Your task to perform on an android device: find which apps use the phone's location Image 0: 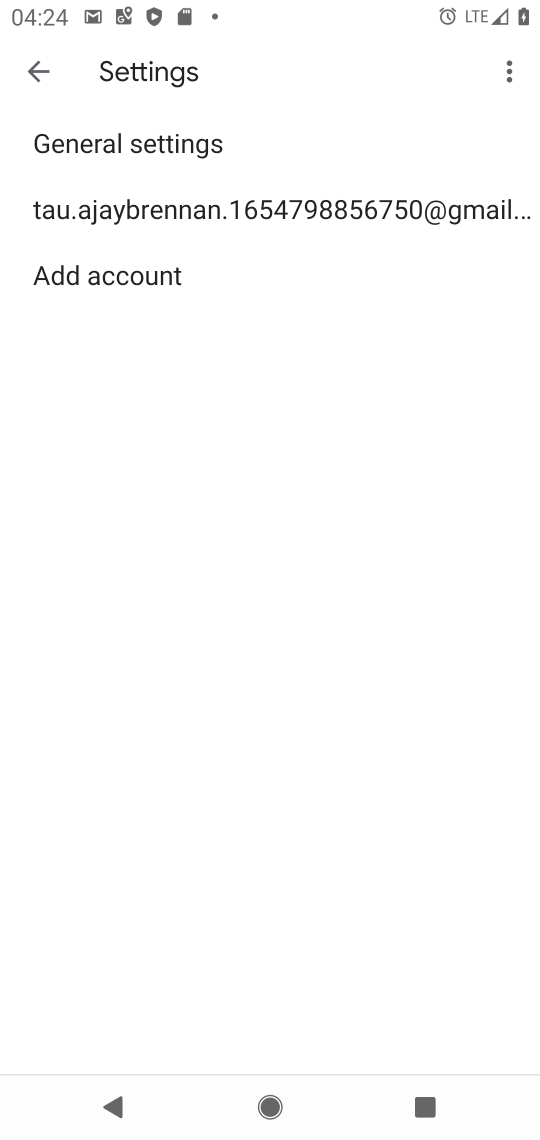
Step 0: press back button
Your task to perform on an android device: find which apps use the phone's location Image 1: 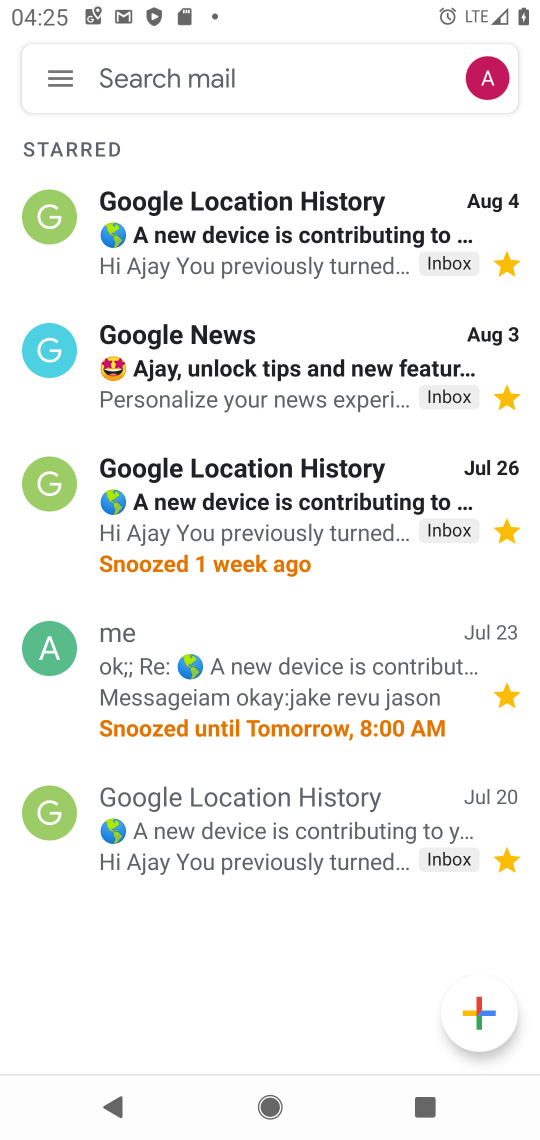
Step 1: press back button
Your task to perform on an android device: find which apps use the phone's location Image 2: 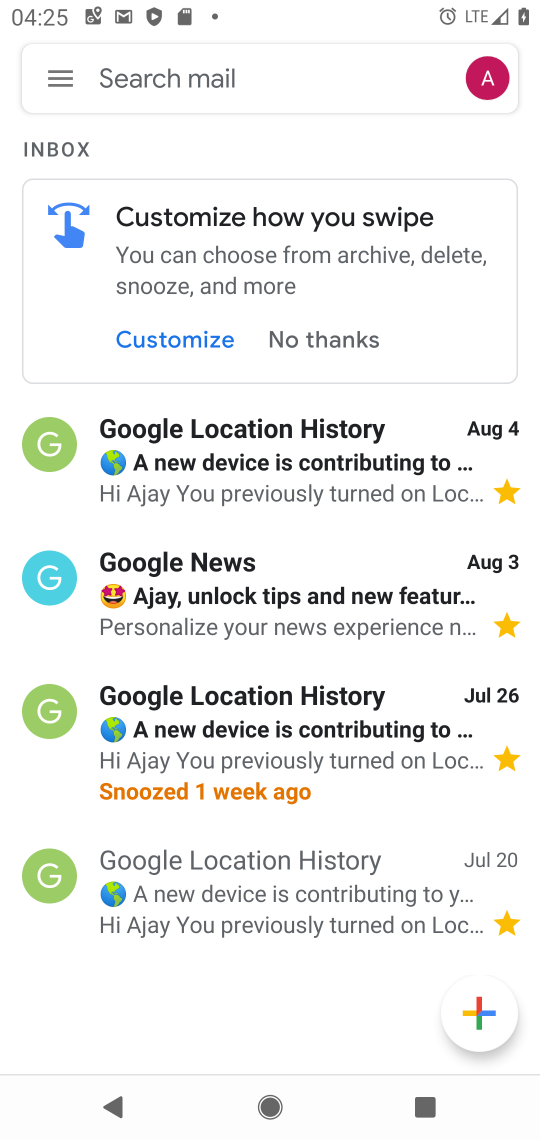
Step 2: press back button
Your task to perform on an android device: find which apps use the phone's location Image 3: 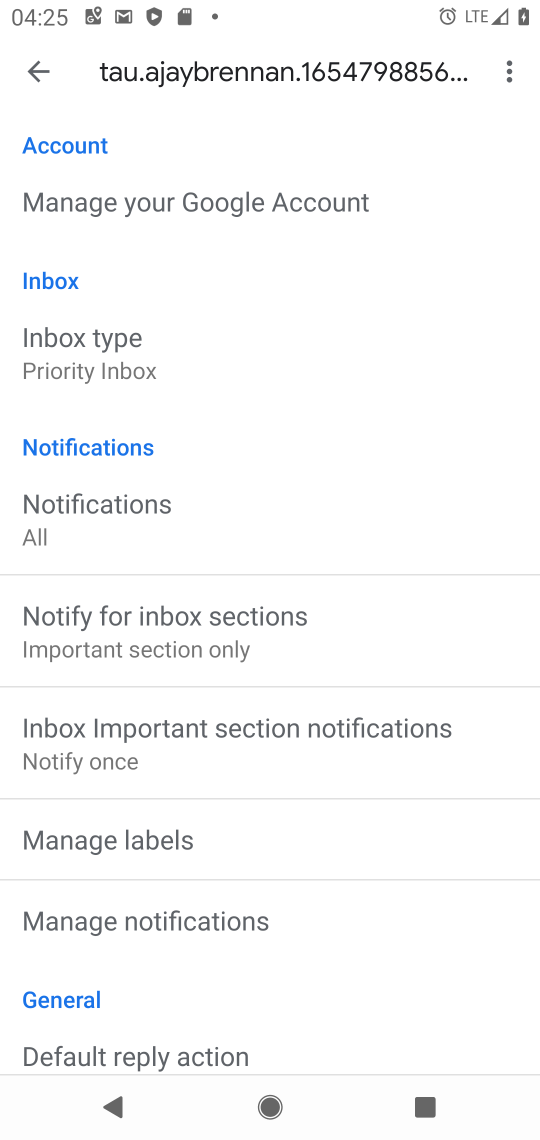
Step 3: press back button
Your task to perform on an android device: find which apps use the phone's location Image 4: 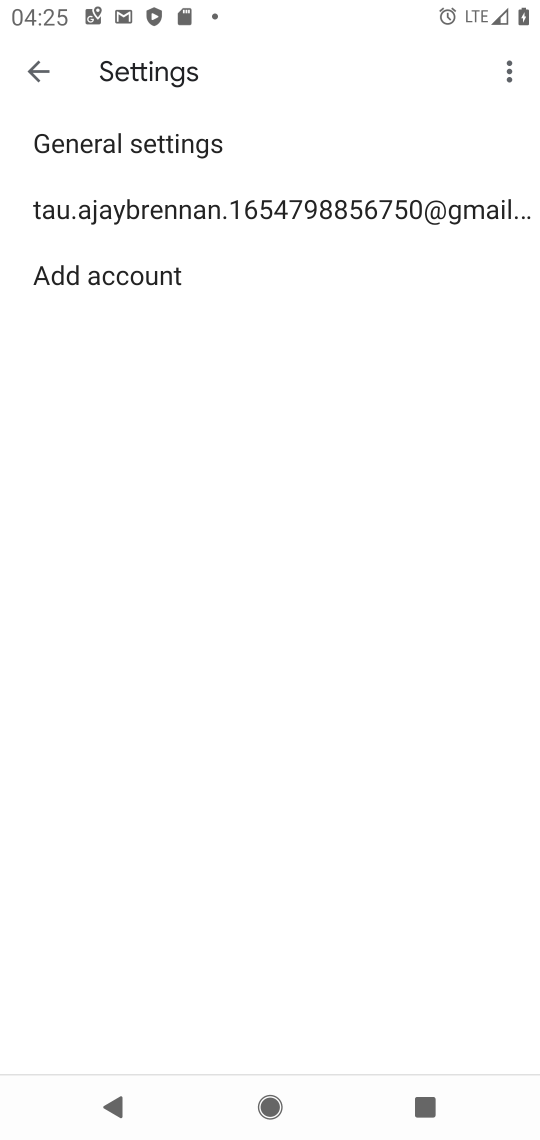
Step 4: press home button
Your task to perform on an android device: find which apps use the phone's location Image 5: 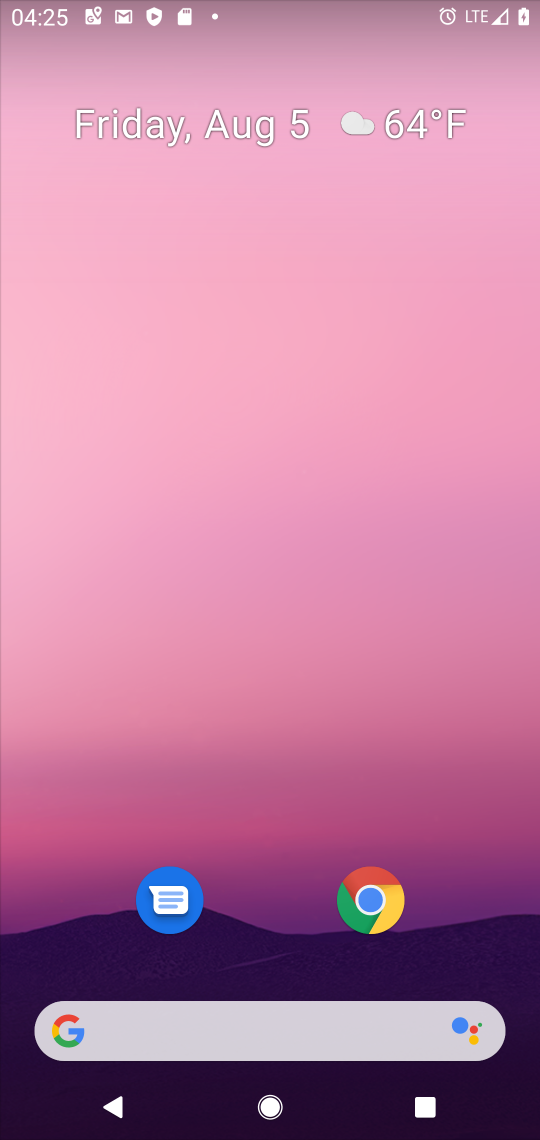
Step 5: drag from (258, 866) to (313, 41)
Your task to perform on an android device: find which apps use the phone's location Image 6: 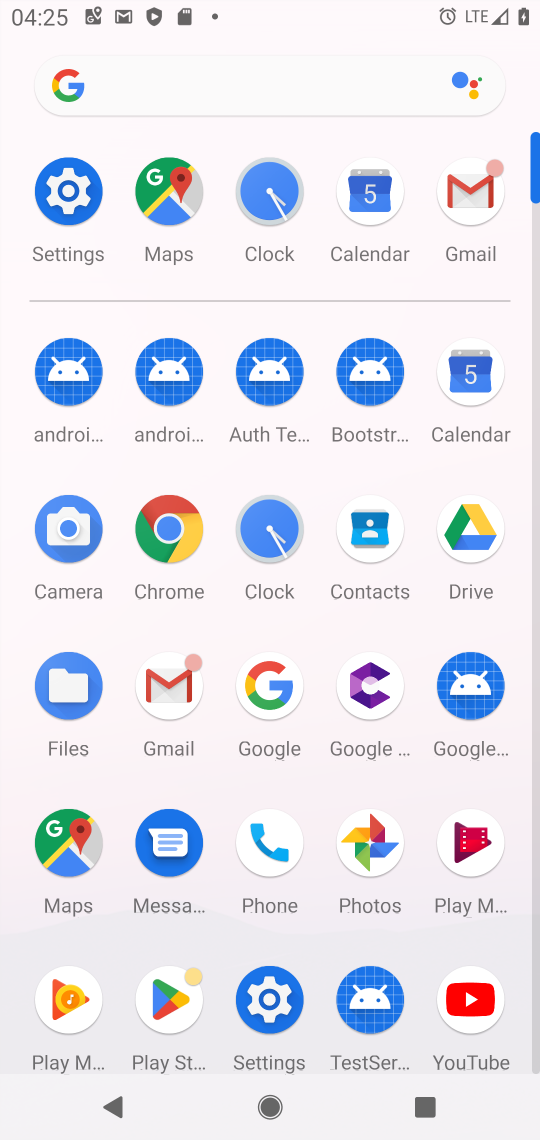
Step 6: click (77, 179)
Your task to perform on an android device: find which apps use the phone's location Image 7: 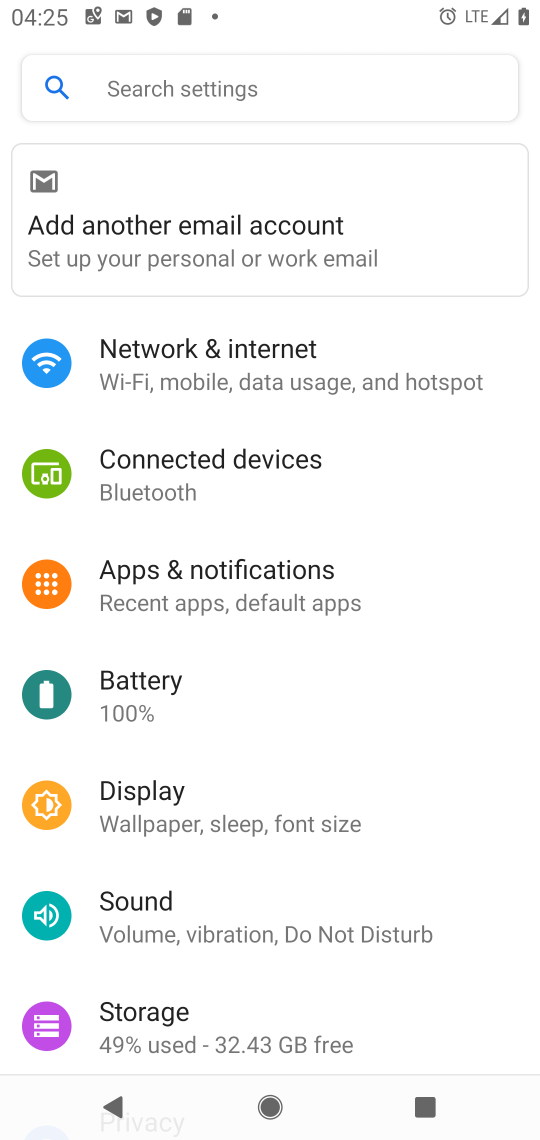
Step 7: drag from (180, 912) to (300, 71)
Your task to perform on an android device: find which apps use the phone's location Image 8: 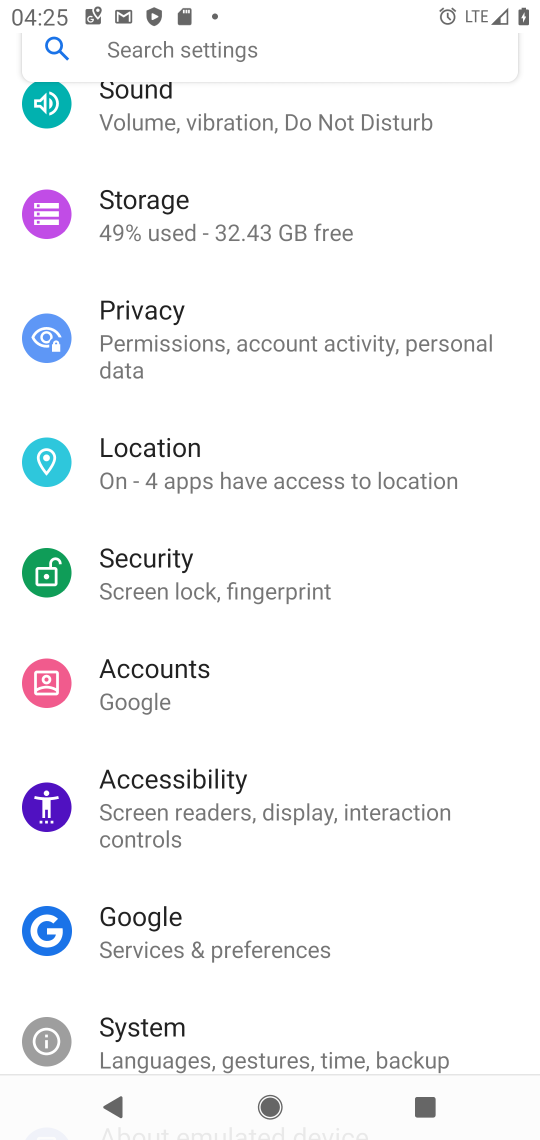
Step 8: drag from (203, 1004) to (308, 95)
Your task to perform on an android device: find which apps use the phone's location Image 9: 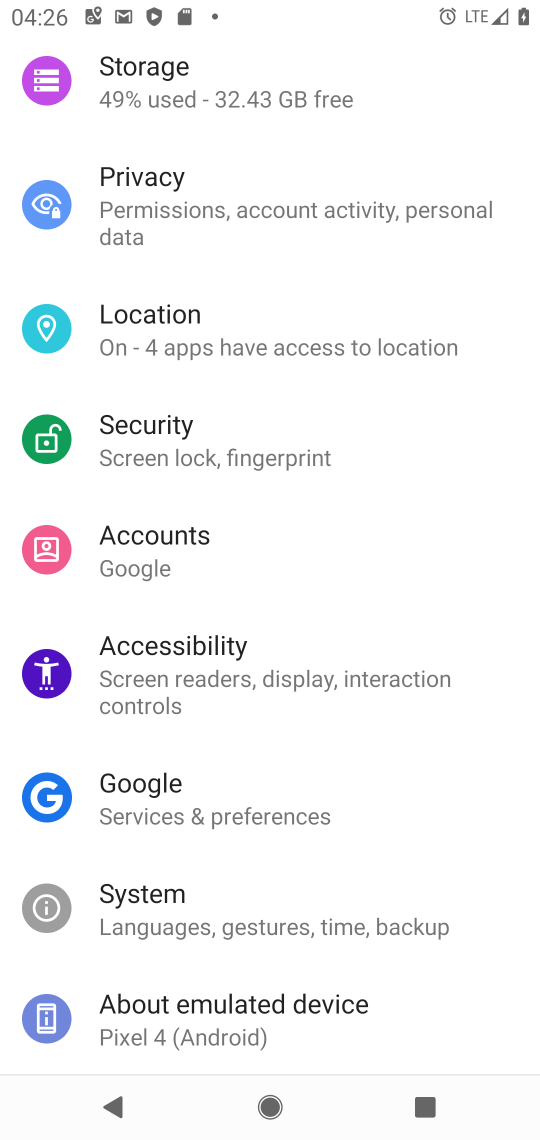
Step 9: click (172, 336)
Your task to perform on an android device: find which apps use the phone's location Image 10: 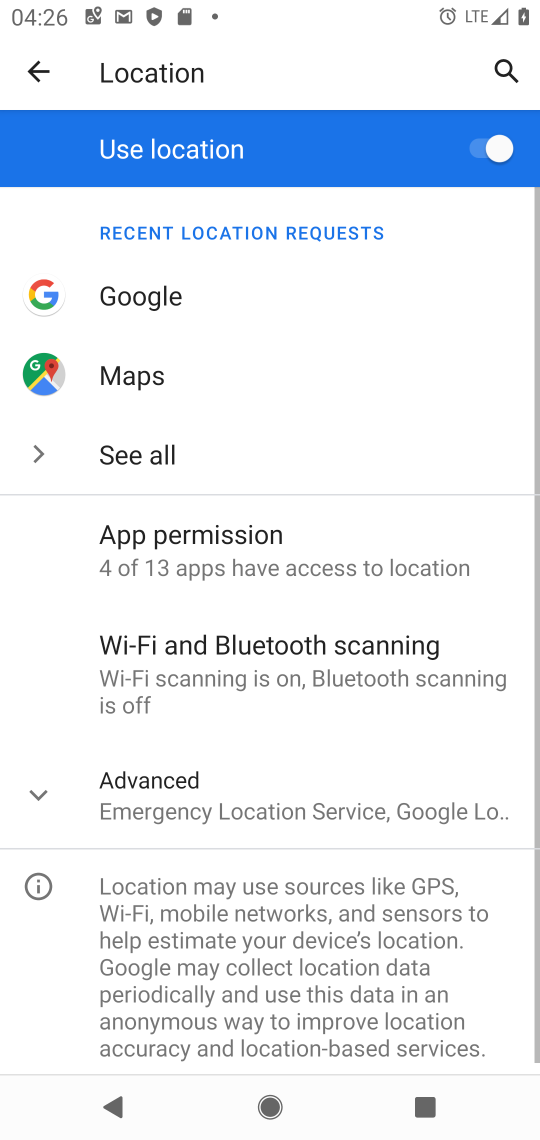
Step 10: click (207, 551)
Your task to perform on an android device: find which apps use the phone's location Image 11: 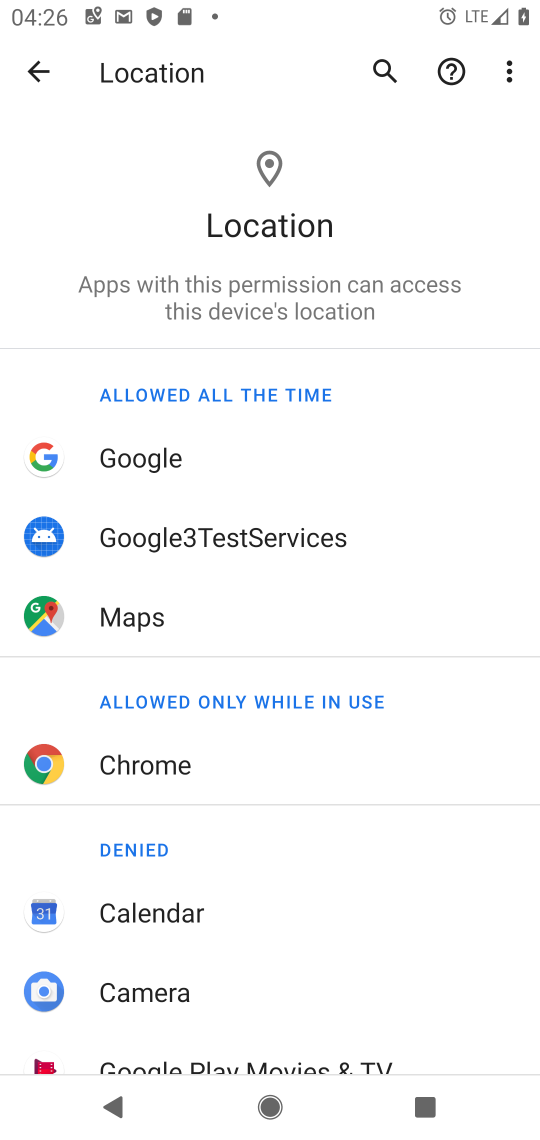
Step 11: task complete